Your task to perform on an android device: Go to notification settings Image 0: 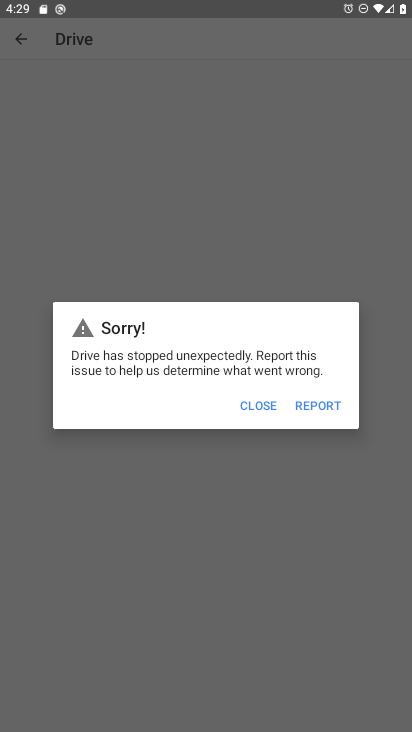
Step 0: press home button
Your task to perform on an android device: Go to notification settings Image 1: 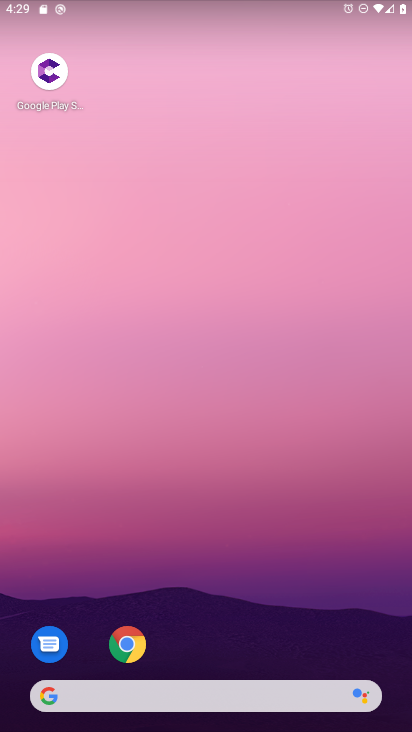
Step 1: drag from (119, 372) to (406, 368)
Your task to perform on an android device: Go to notification settings Image 2: 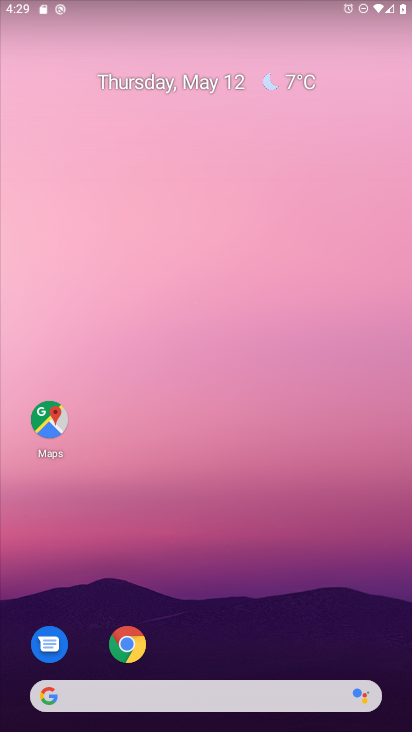
Step 2: drag from (195, 638) to (265, 211)
Your task to perform on an android device: Go to notification settings Image 3: 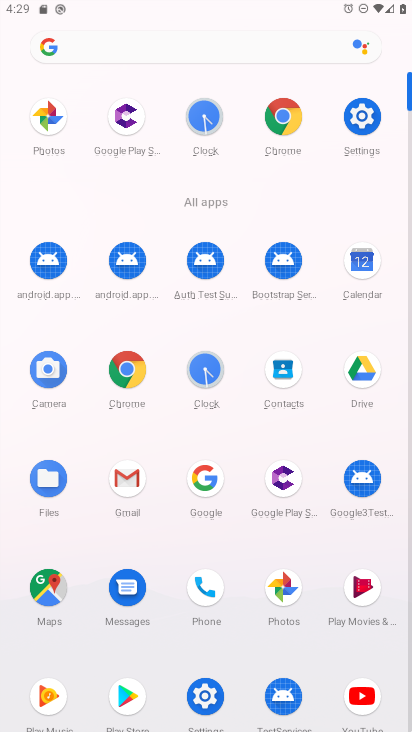
Step 3: click (366, 133)
Your task to perform on an android device: Go to notification settings Image 4: 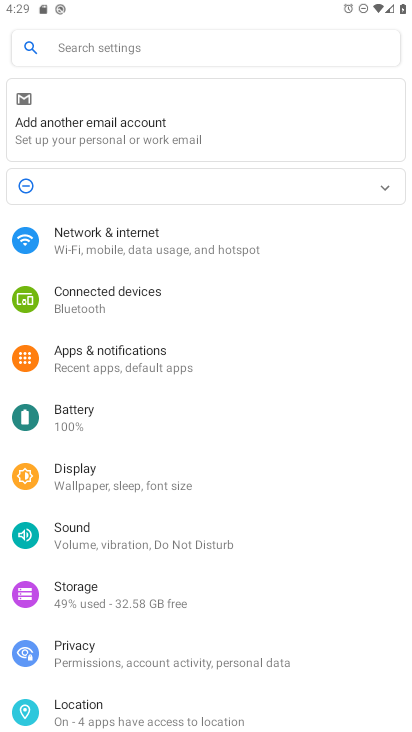
Step 4: click (140, 365)
Your task to perform on an android device: Go to notification settings Image 5: 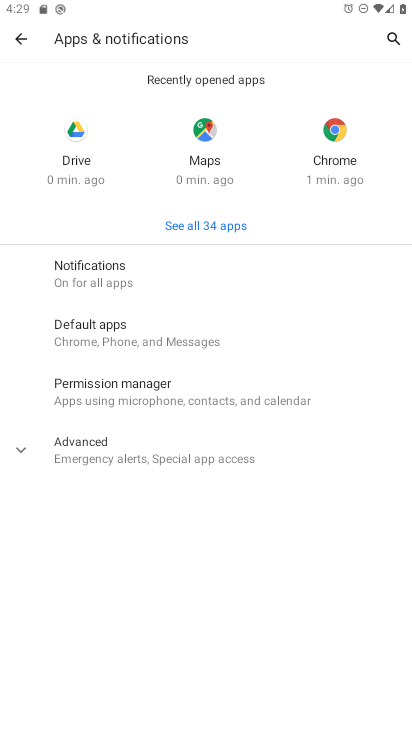
Step 5: click (137, 291)
Your task to perform on an android device: Go to notification settings Image 6: 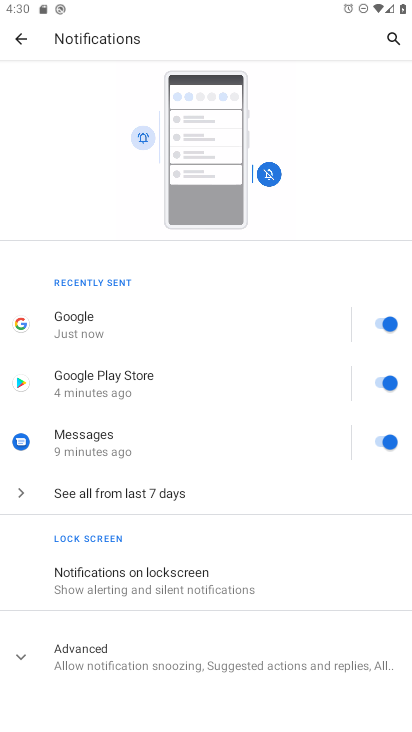
Step 6: task complete